Your task to perform on an android device: toggle improve location accuracy Image 0: 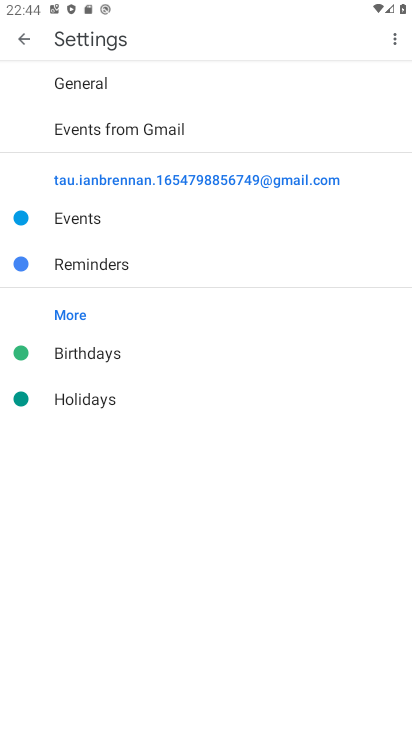
Step 0: drag from (235, 593) to (177, 271)
Your task to perform on an android device: toggle improve location accuracy Image 1: 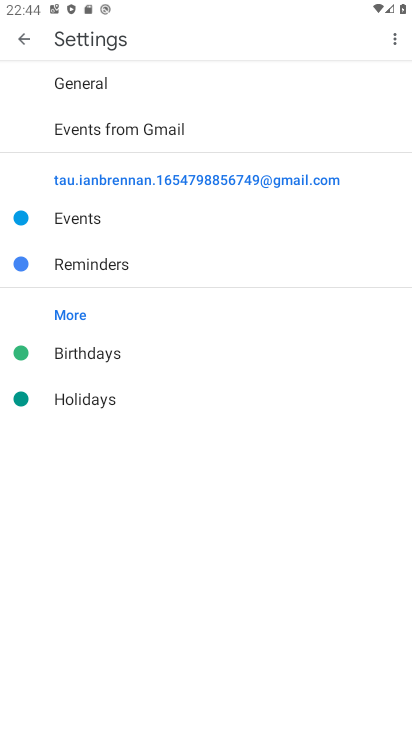
Step 1: click (18, 41)
Your task to perform on an android device: toggle improve location accuracy Image 2: 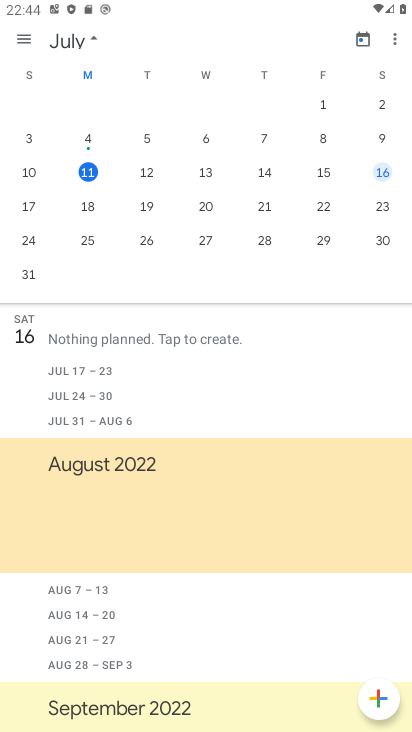
Step 2: click (16, 38)
Your task to perform on an android device: toggle improve location accuracy Image 3: 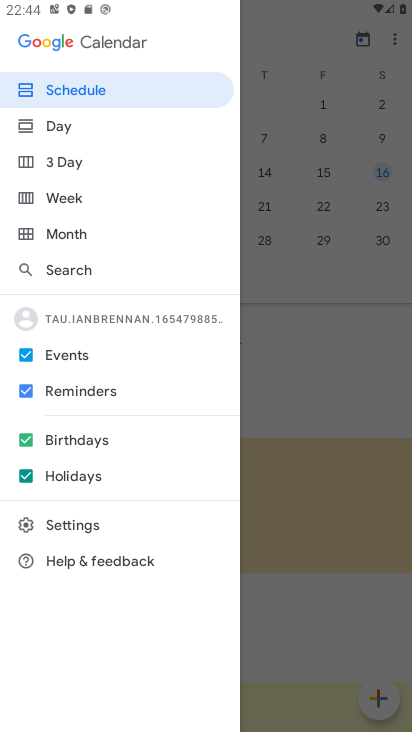
Step 3: click (285, 371)
Your task to perform on an android device: toggle improve location accuracy Image 4: 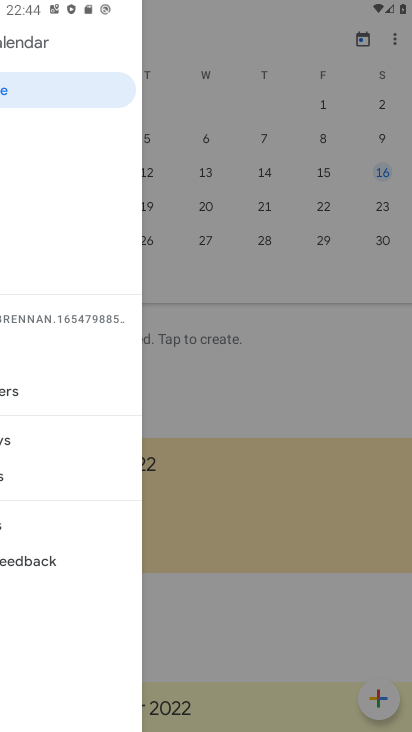
Step 4: click (285, 371)
Your task to perform on an android device: toggle improve location accuracy Image 5: 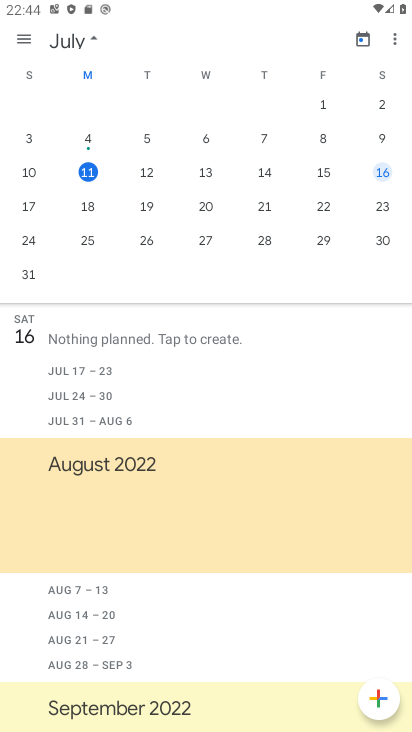
Step 5: click (285, 369)
Your task to perform on an android device: toggle improve location accuracy Image 6: 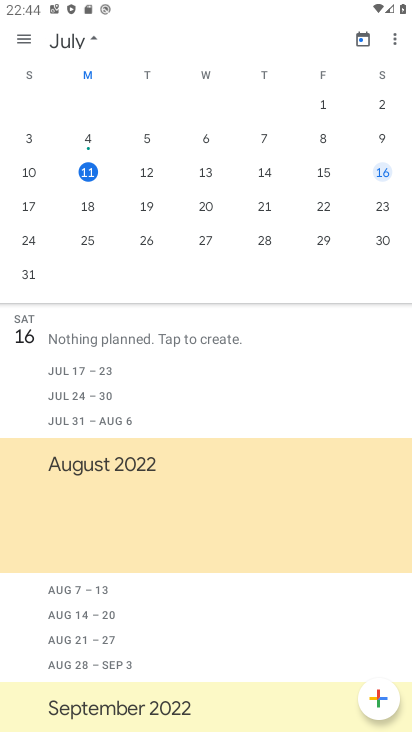
Step 6: press home button
Your task to perform on an android device: toggle improve location accuracy Image 7: 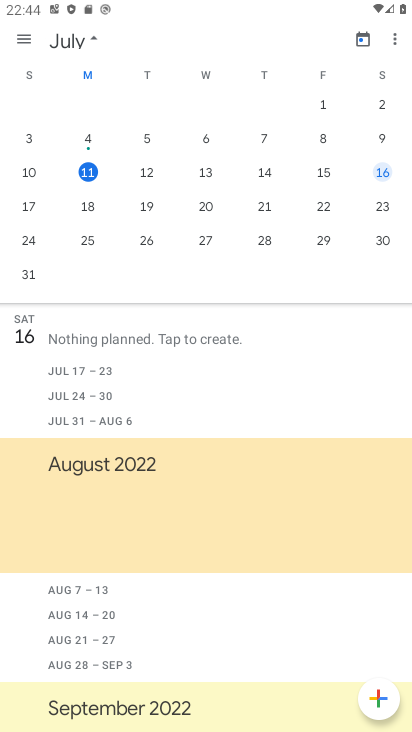
Step 7: press home button
Your task to perform on an android device: toggle improve location accuracy Image 8: 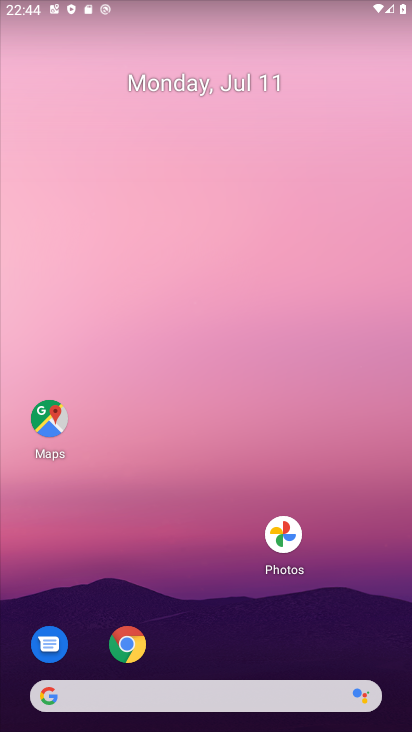
Step 8: press home button
Your task to perform on an android device: toggle improve location accuracy Image 9: 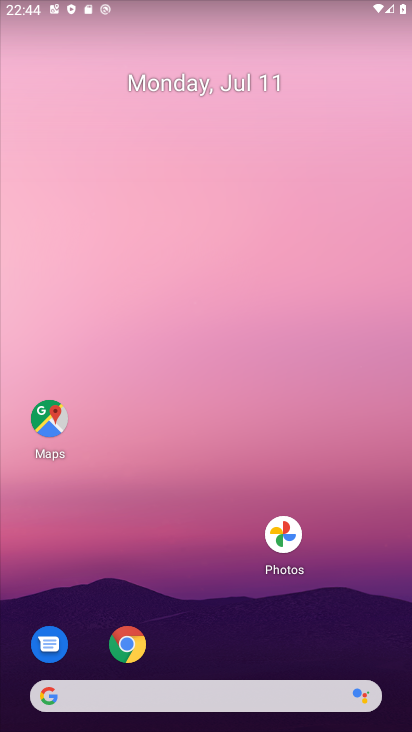
Step 9: drag from (228, 606) to (172, 174)
Your task to perform on an android device: toggle improve location accuracy Image 10: 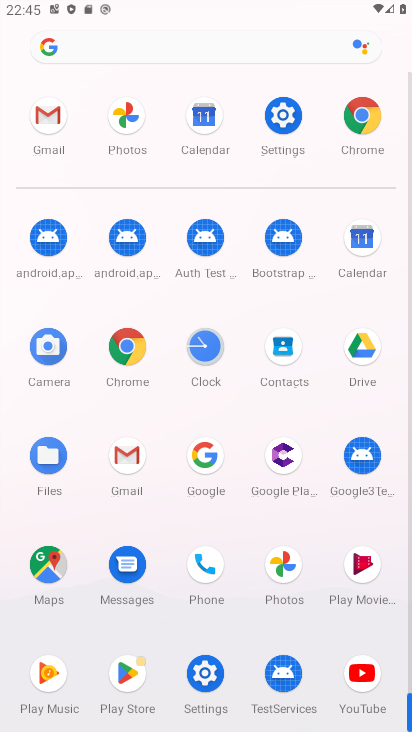
Step 10: click (280, 119)
Your task to perform on an android device: toggle improve location accuracy Image 11: 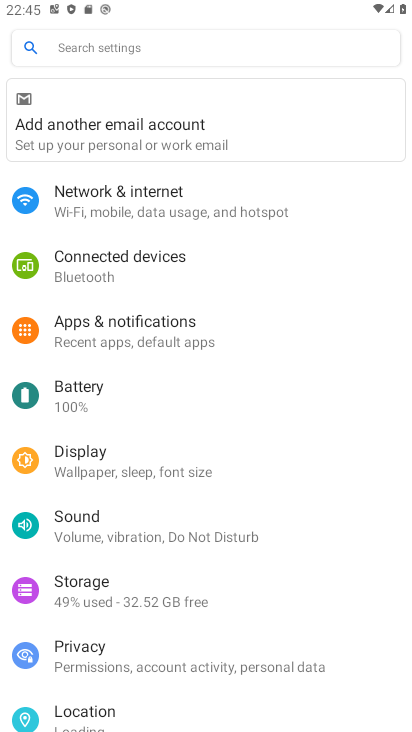
Step 11: drag from (114, 497) to (139, 146)
Your task to perform on an android device: toggle improve location accuracy Image 12: 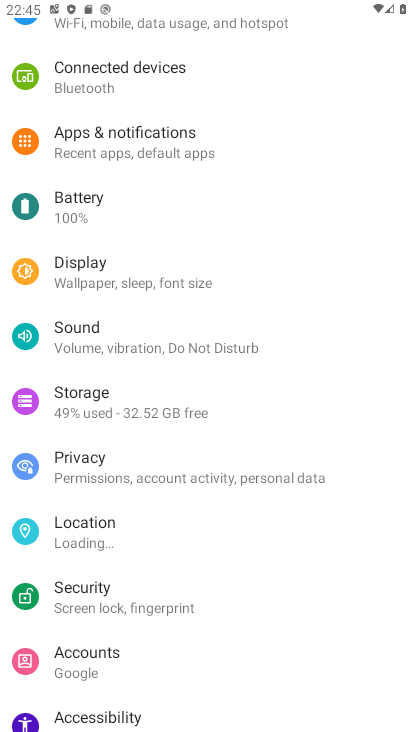
Step 12: drag from (137, 546) to (126, 165)
Your task to perform on an android device: toggle improve location accuracy Image 13: 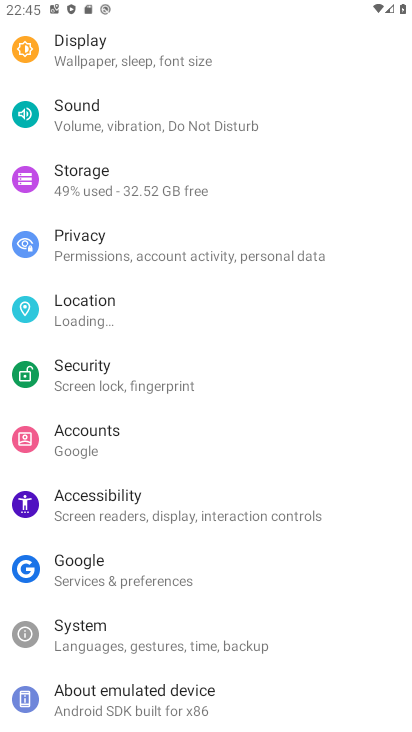
Step 13: drag from (143, 557) to (157, 246)
Your task to perform on an android device: toggle improve location accuracy Image 14: 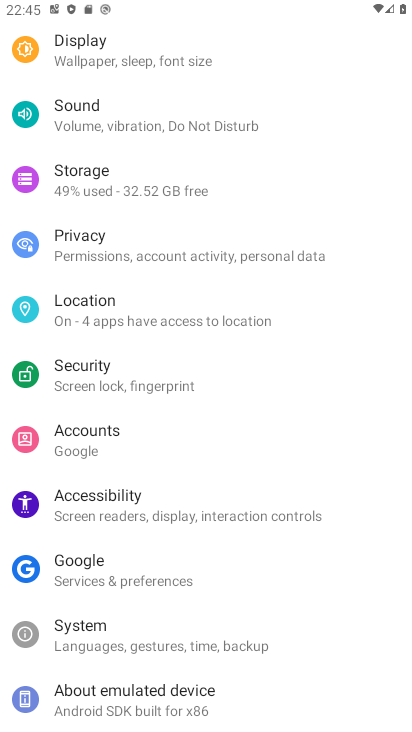
Step 14: click (79, 305)
Your task to perform on an android device: toggle improve location accuracy Image 15: 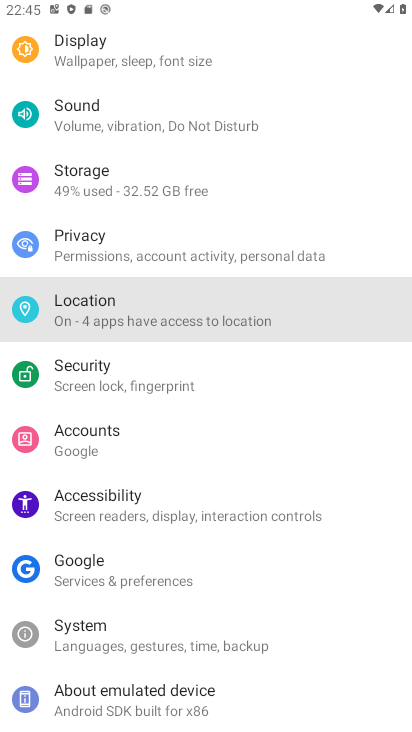
Step 15: click (79, 306)
Your task to perform on an android device: toggle improve location accuracy Image 16: 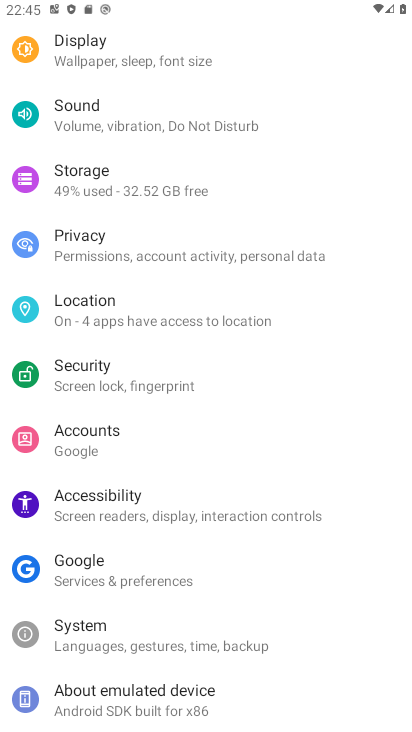
Step 16: click (80, 307)
Your task to perform on an android device: toggle improve location accuracy Image 17: 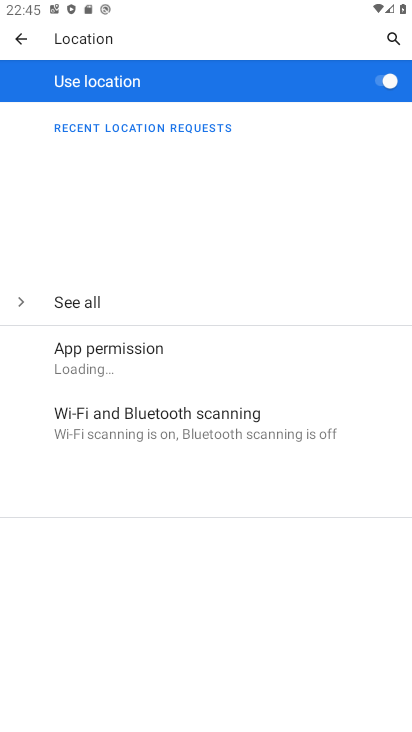
Step 17: click (79, 306)
Your task to perform on an android device: toggle improve location accuracy Image 18: 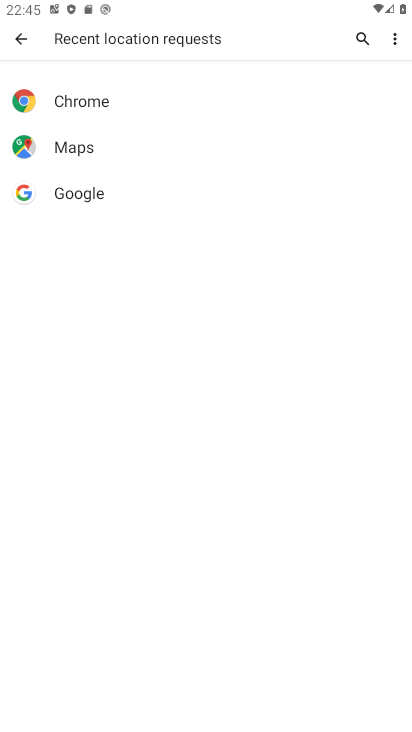
Step 18: click (20, 41)
Your task to perform on an android device: toggle improve location accuracy Image 19: 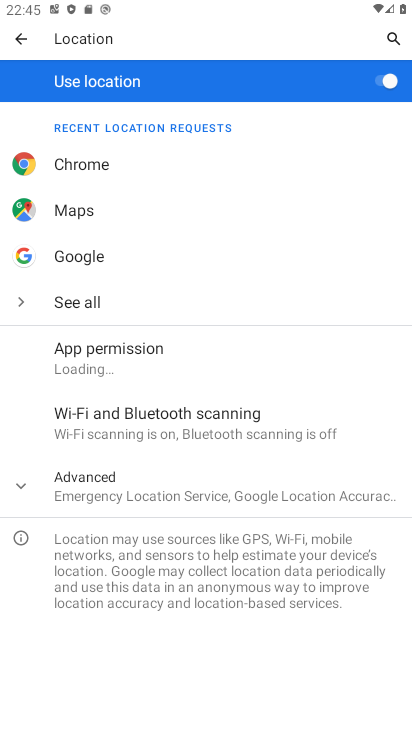
Step 19: click (100, 484)
Your task to perform on an android device: toggle improve location accuracy Image 20: 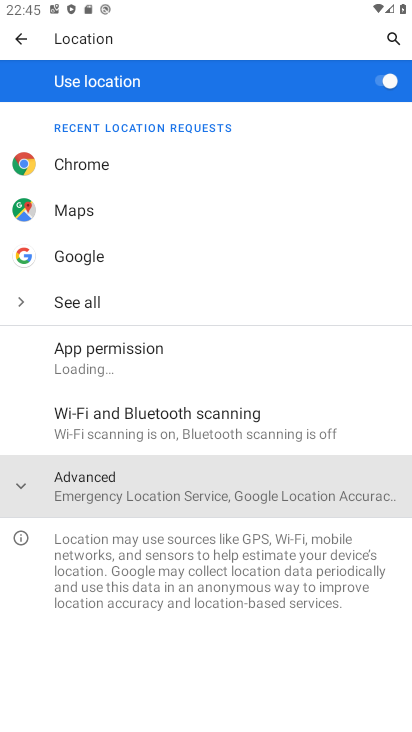
Step 20: click (101, 483)
Your task to perform on an android device: toggle improve location accuracy Image 21: 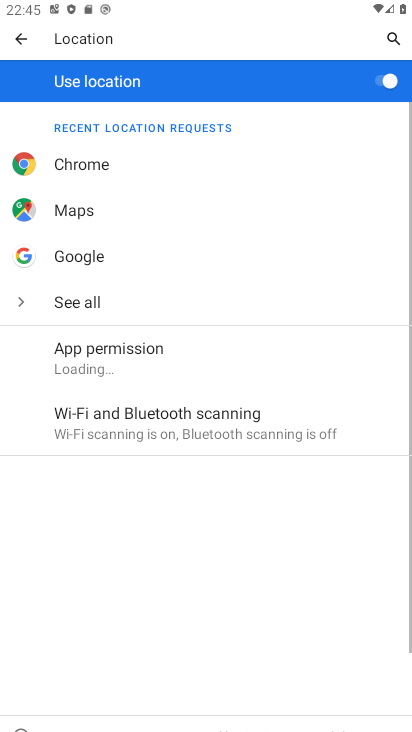
Step 21: click (101, 483)
Your task to perform on an android device: toggle improve location accuracy Image 22: 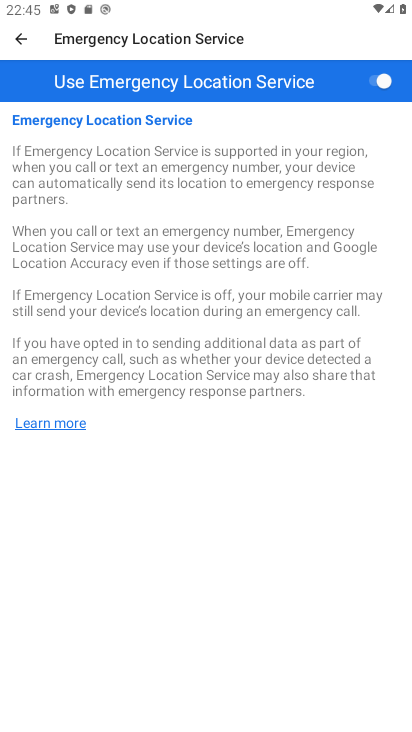
Step 22: click (10, 32)
Your task to perform on an android device: toggle improve location accuracy Image 23: 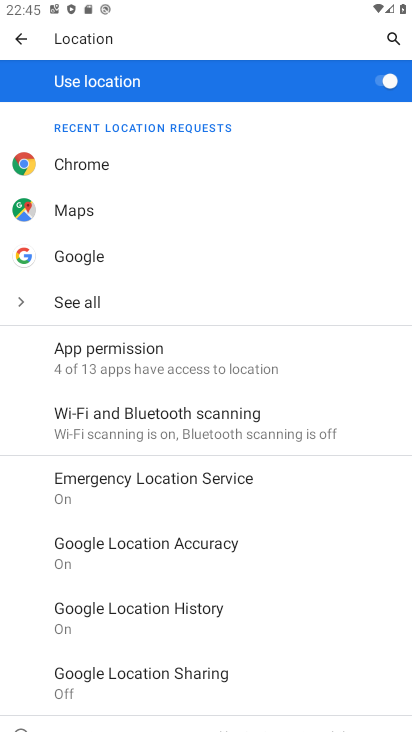
Step 23: click (148, 525)
Your task to perform on an android device: toggle improve location accuracy Image 24: 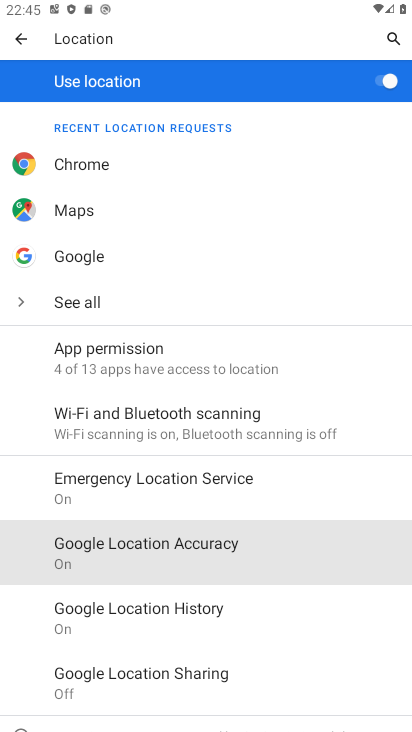
Step 24: click (145, 528)
Your task to perform on an android device: toggle improve location accuracy Image 25: 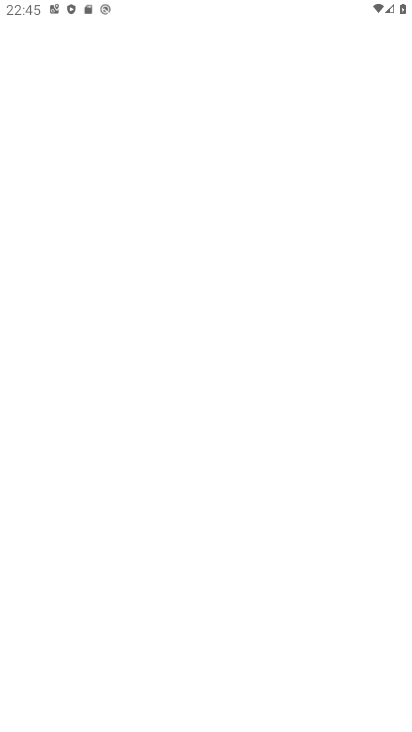
Step 25: click (146, 529)
Your task to perform on an android device: toggle improve location accuracy Image 26: 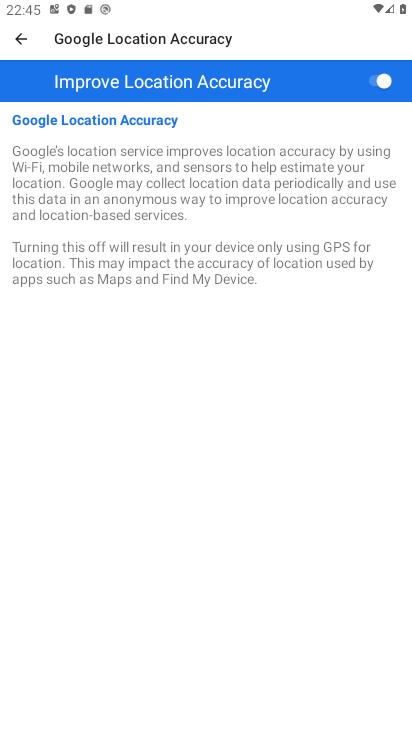
Step 26: task complete